Your task to perform on an android device: Search for pizza restaurants on Maps Image 0: 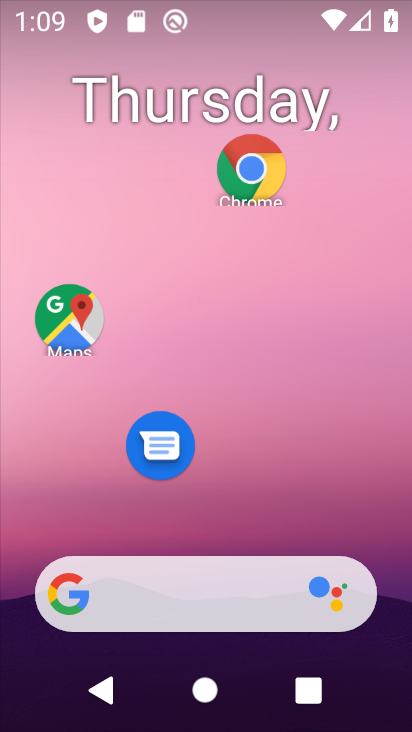
Step 0: click (296, 283)
Your task to perform on an android device: Search for pizza restaurants on Maps Image 1: 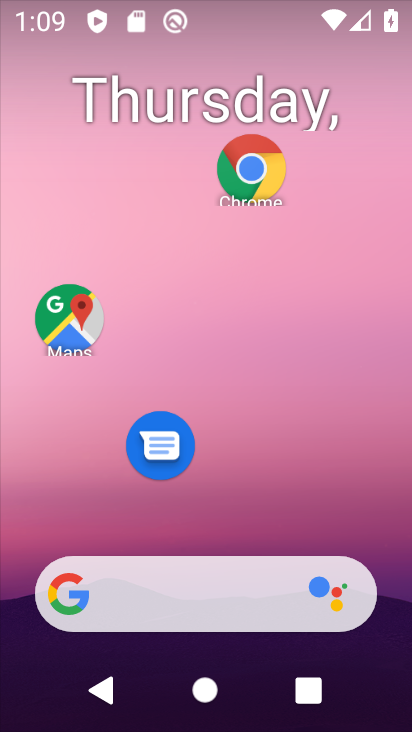
Step 1: drag from (243, 630) to (253, 241)
Your task to perform on an android device: Search for pizza restaurants on Maps Image 2: 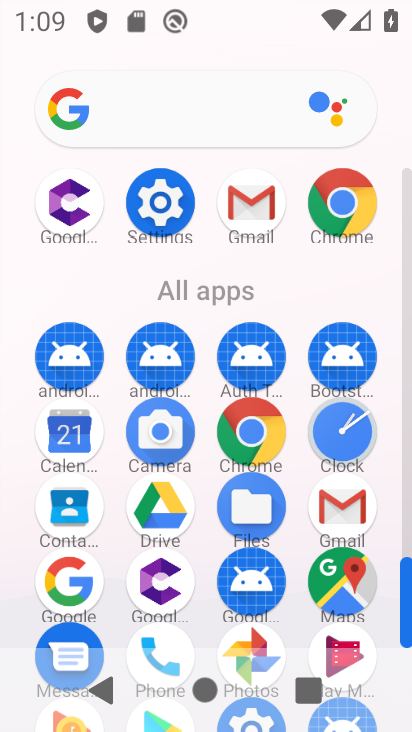
Step 2: click (354, 576)
Your task to perform on an android device: Search for pizza restaurants on Maps Image 3: 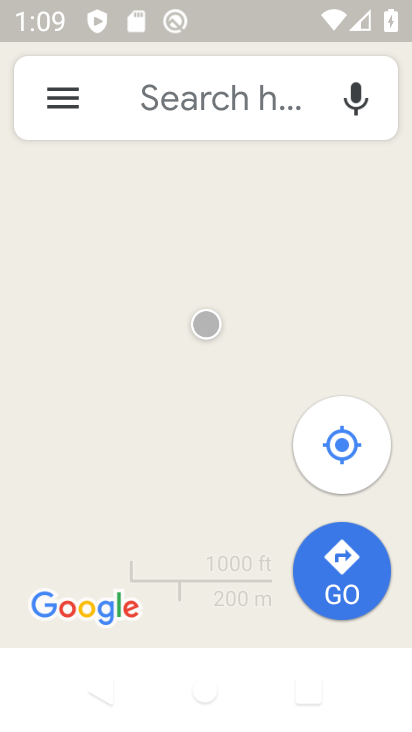
Step 3: click (217, 113)
Your task to perform on an android device: Search for pizza restaurants on Maps Image 4: 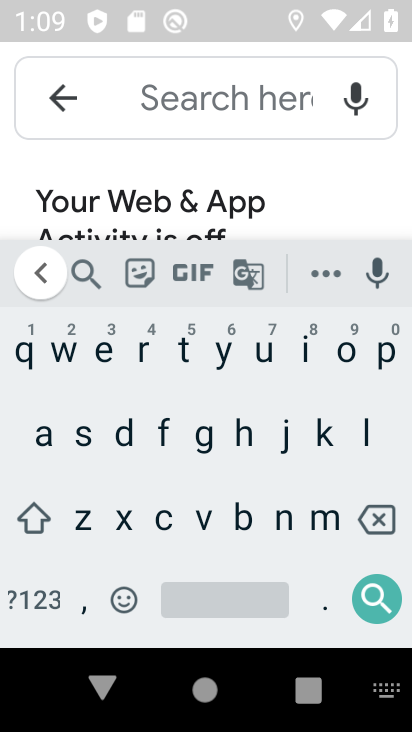
Step 4: click (378, 355)
Your task to perform on an android device: Search for pizza restaurants on Maps Image 5: 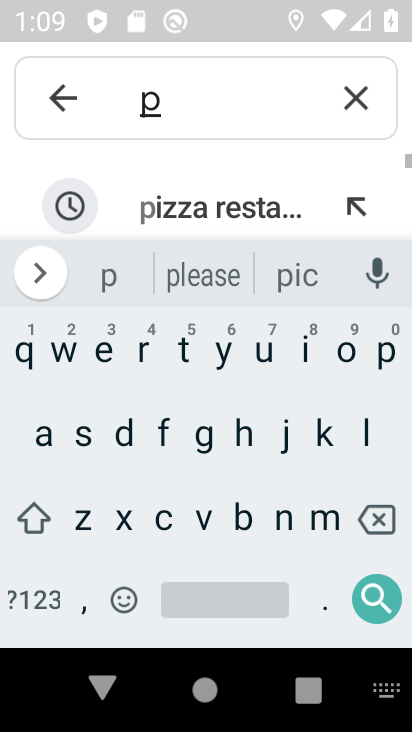
Step 5: click (209, 209)
Your task to perform on an android device: Search for pizza restaurants on Maps Image 6: 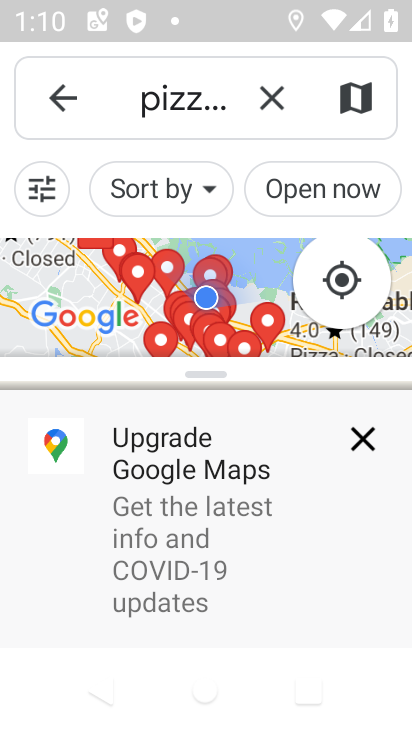
Step 6: click (359, 436)
Your task to perform on an android device: Search for pizza restaurants on Maps Image 7: 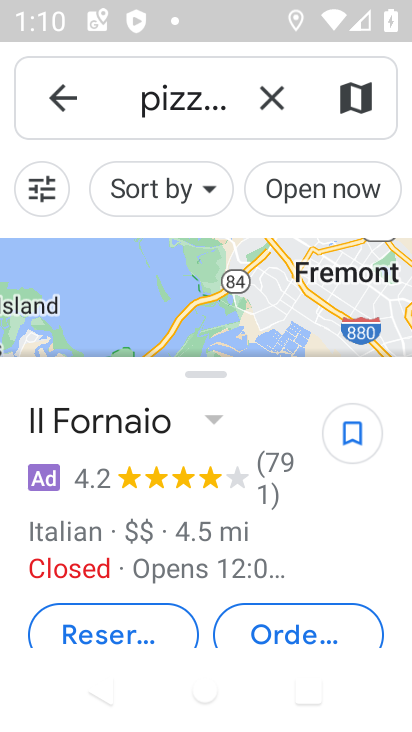
Step 7: click (178, 311)
Your task to perform on an android device: Search for pizza restaurants on Maps Image 8: 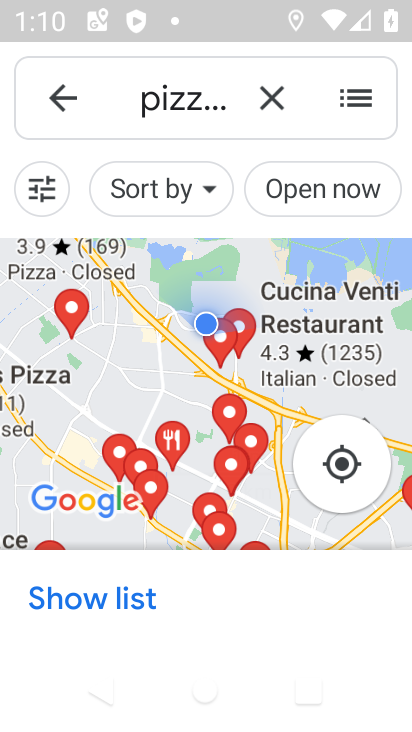
Step 8: task complete